Your task to perform on an android device: allow notifications from all sites in the chrome app Image 0: 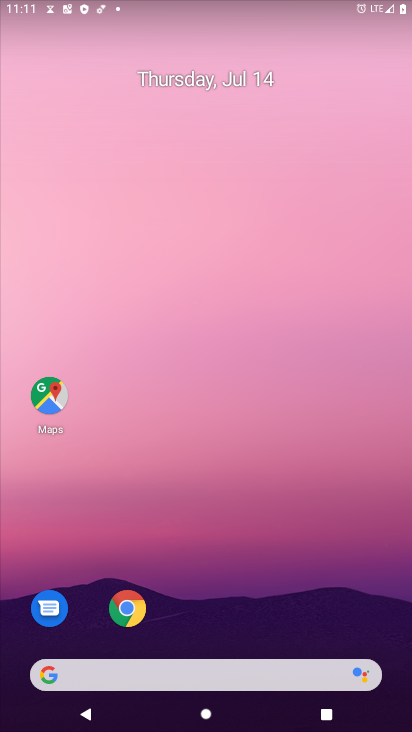
Step 0: click (129, 610)
Your task to perform on an android device: allow notifications from all sites in the chrome app Image 1: 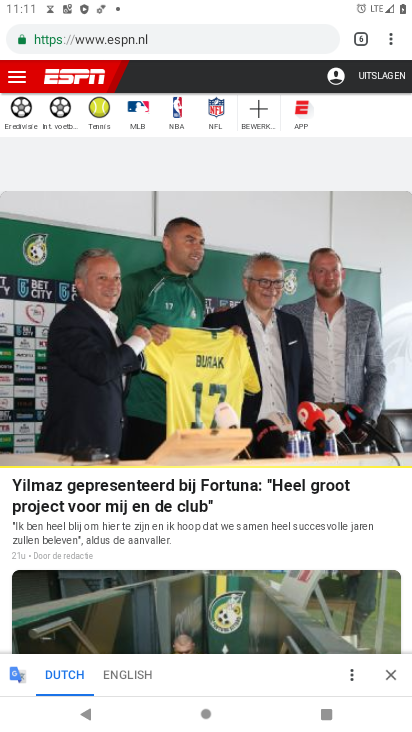
Step 1: click (388, 42)
Your task to perform on an android device: allow notifications from all sites in the chrome app Image 2: 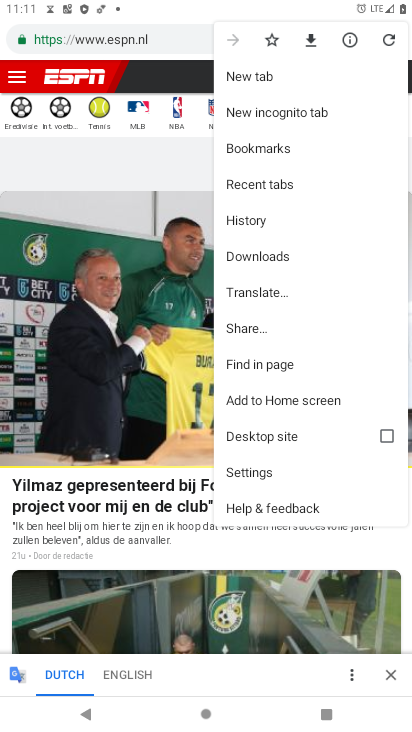
Step 2: click (247, 471)
Your task to perform on an android device: allow notifications from all sites in the chrome app Image 3: 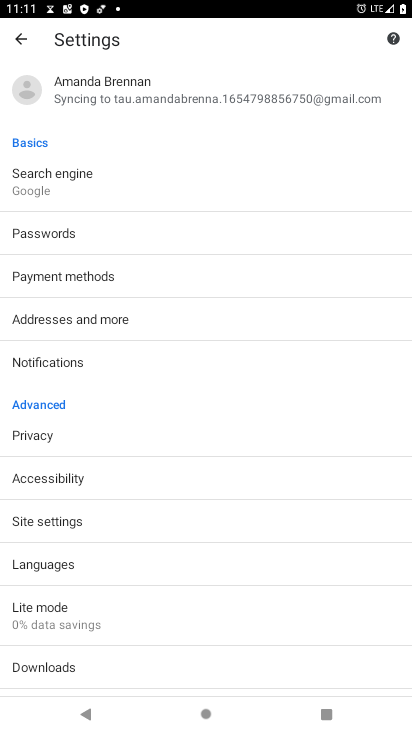
Step 3: click (49, 520)
Your task to perform on an android device: allow notifications from all sites in the chrome app Image 4: 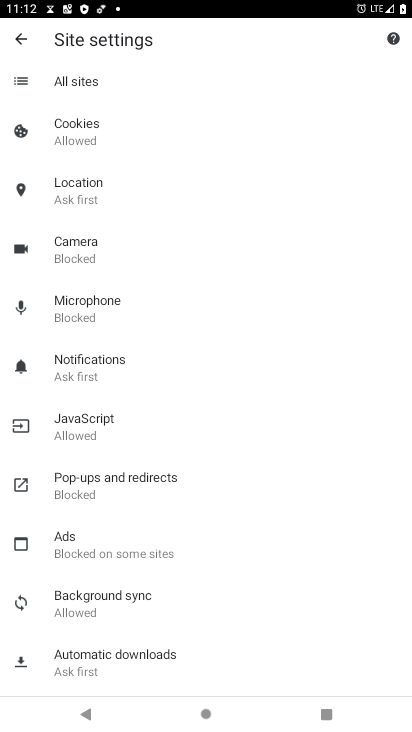
Step 4: click (79, 349)
Your task to perform on an android device: allow notifications from all sites in the chrome app Image 5: 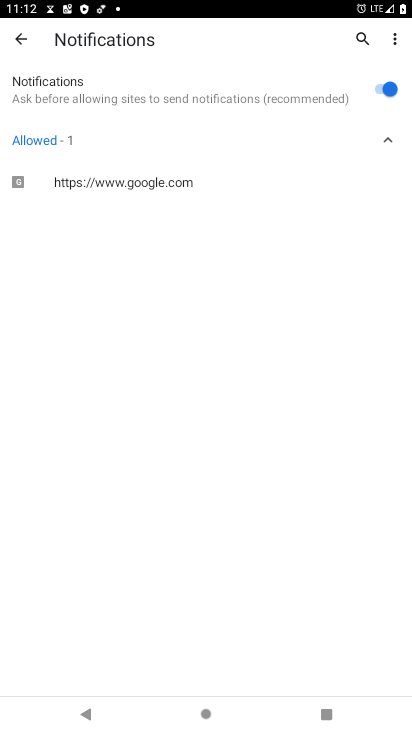
Step 5: task complete